Your task to perform on an android device: turn off location Image 0: 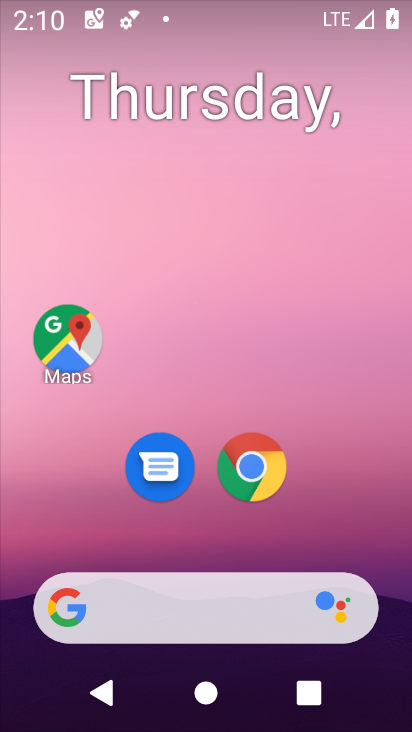
Step 0: drag from (219, 545) to (159, 117)
Your task to perform on an android device: turn off location Image 1: 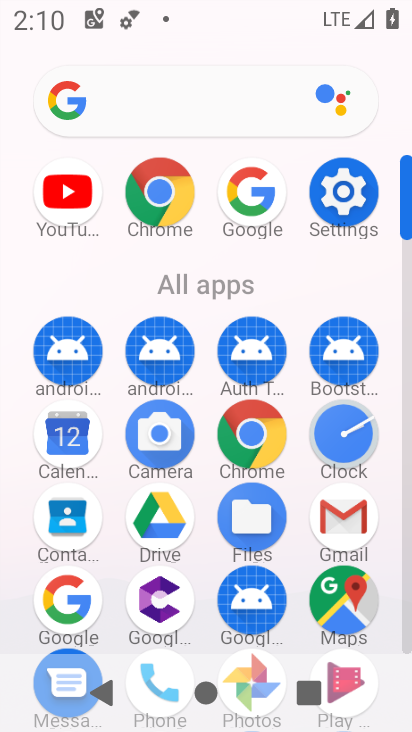
Step 1: click (325, 274)
Your task to perform on an android device: turn off location Image 2: 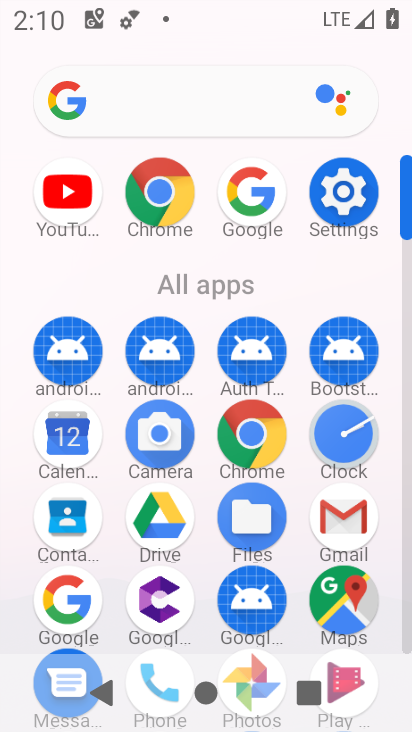
Step 2: click (342, 219)
Your task to perform on an android device: turn off location Image 3: 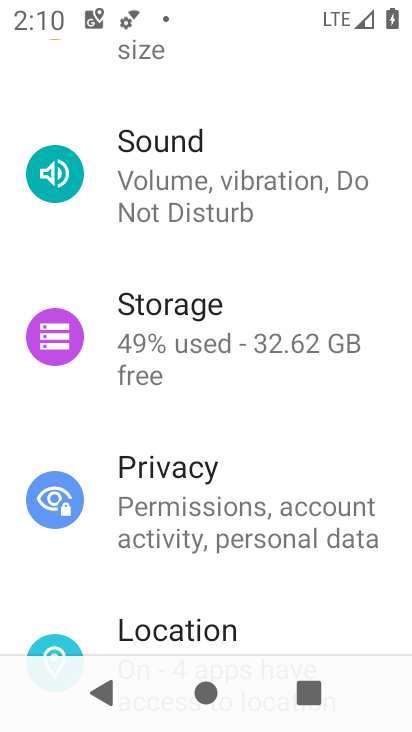
Step 3: click (207, 634)
Your task to perform on an android device: turn off location Image 4: 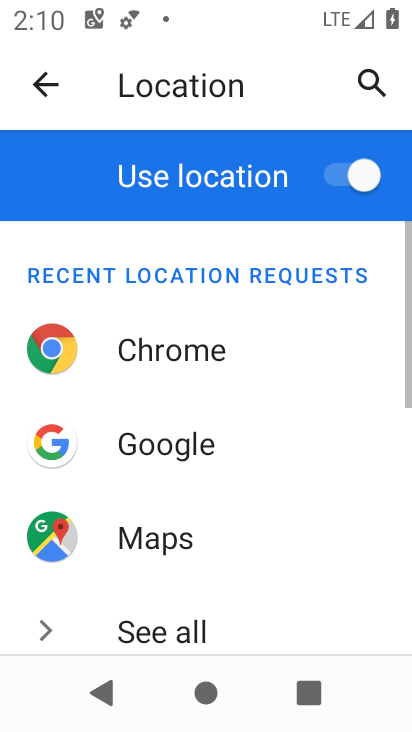
Step 4: drag from (207, 588) to (160, 178)
Your task to perform on an android device: turn off location Image 5: 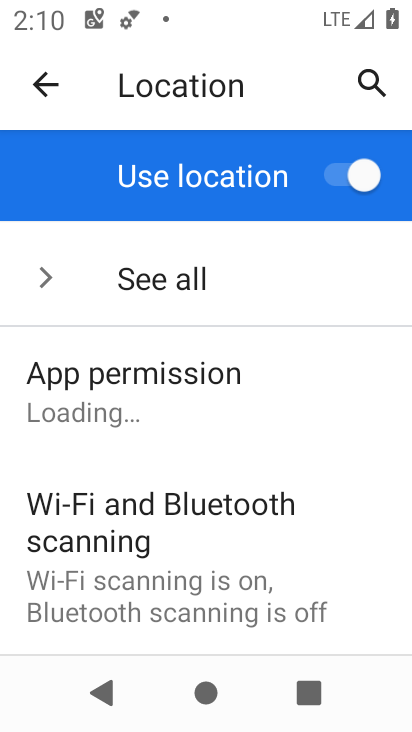
Step 5: click (349, 185)
Your task to perform on an android device: turn off location Image 6: 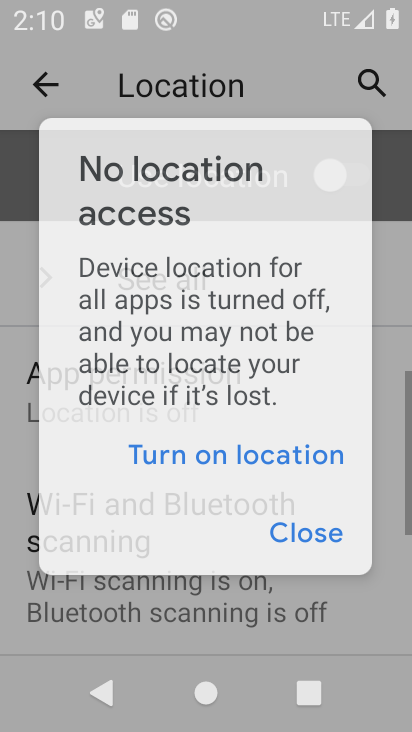
Step 6: task complete